Your task to perform on an android device: allow cookies in the chrome app Image 0: 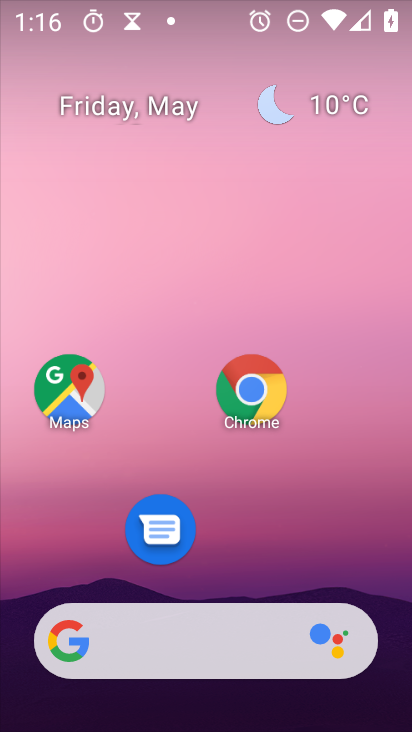
Step 0: press home button
Your task to perform on an android device: allow cookies in the chrome app Image 1: 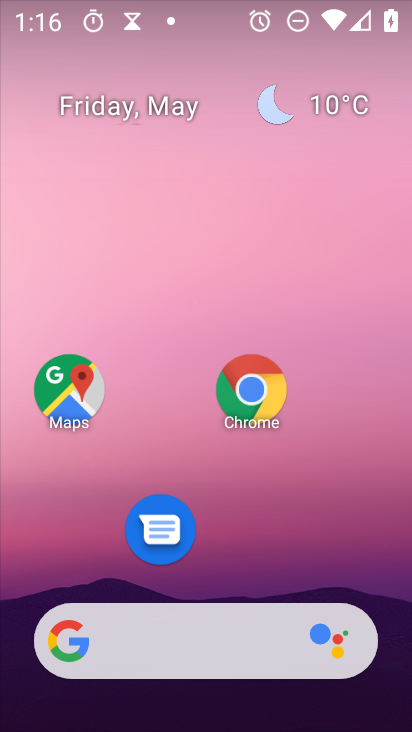
Step 1: click (259, 403)
Your task to perform on an android device: allow cookies in the chrome app Image 2: 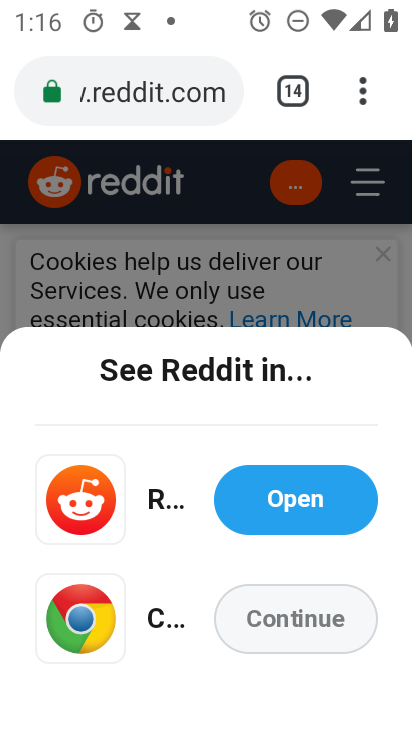
Step 2: drag from (366, 101) to (224, 560)
Your task to perform on an android device: allow cookies in the chrome app Image 3: 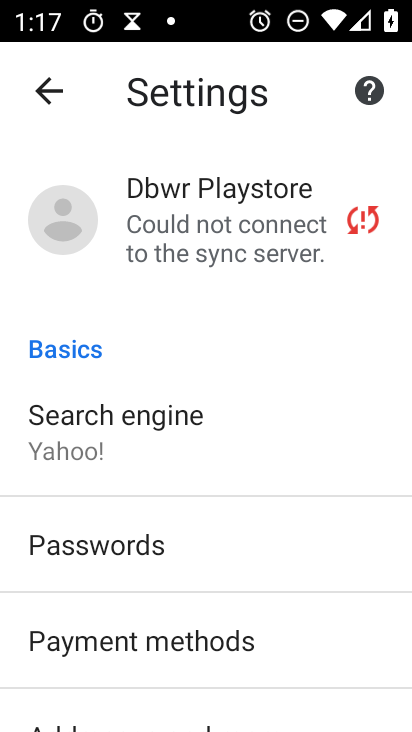
Step 3: drag from (192, 655) to (303, 119)
Your task to perform on an android device: allow cookies in the chrome app Image 4: 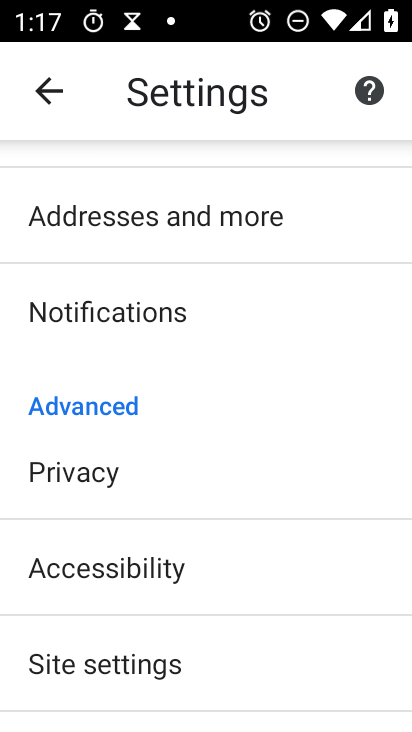
Step 4: drag from (203, 595) to (247, 265)
Your task to perform on an android device: allow cookies in the chrome app Image 5: 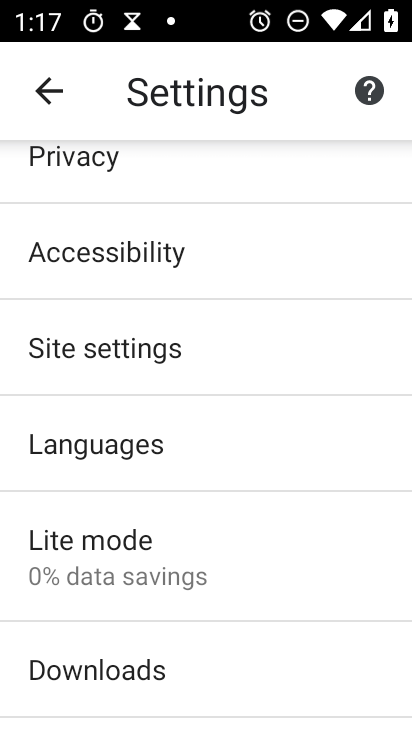
Step 5: click (116, 343)
Your task to perform on an android device: allow cookies in the chrome app Image 6: 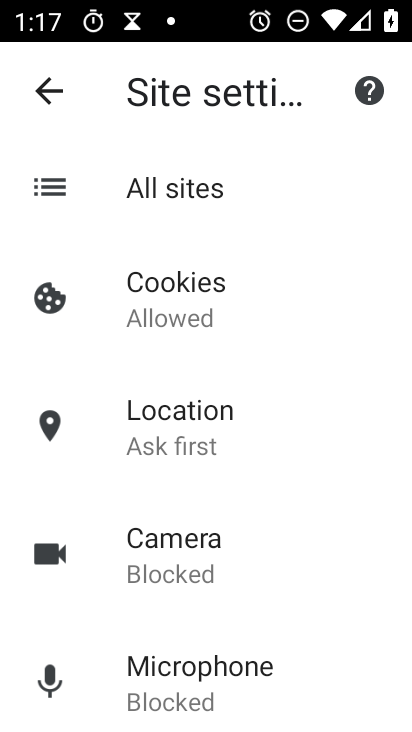
Step 6: click (141, 313)
Your task to perform on an android device: allow cookies in the chrome app Image 7: 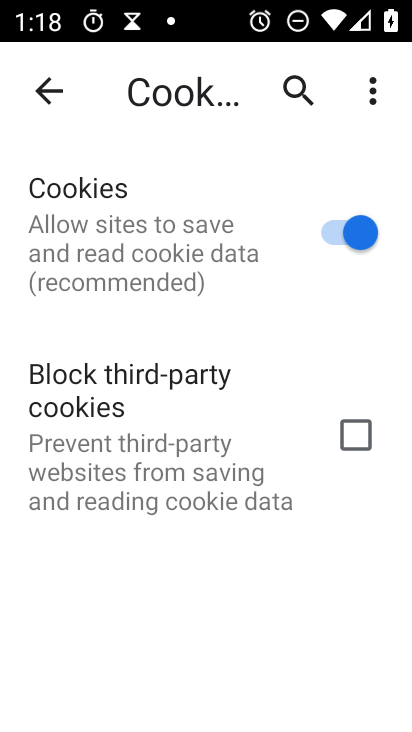
Step 7: task complete